Your task to perform on an android device: Do I have any events today? Image 0: 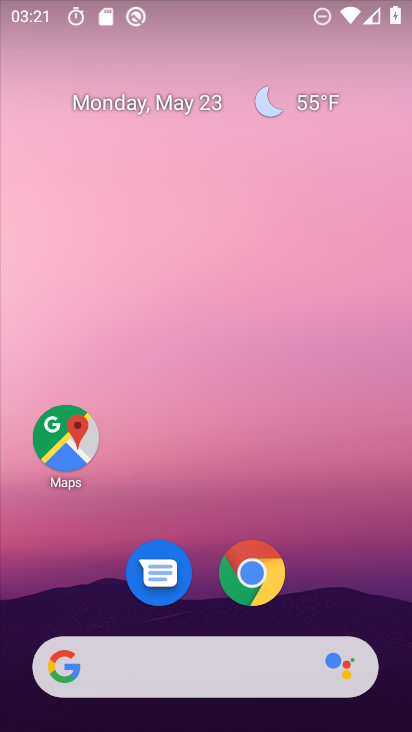
Step 0: click (140, 102)
Your task to perform on an android device: Do I have any events today? Image 1: 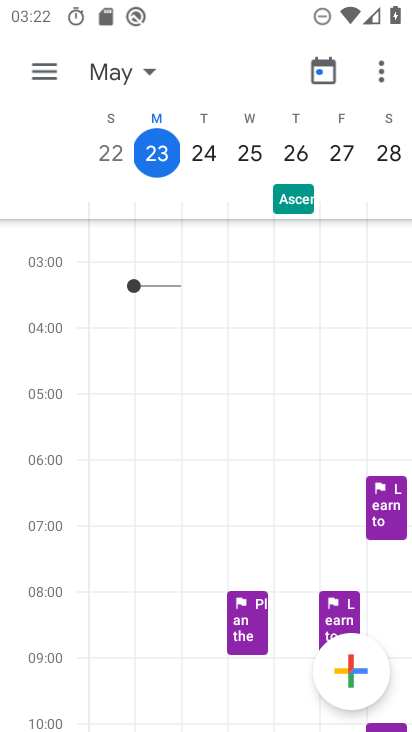
Step 1: click (46, 69)
Your task to perform on an android device: Do I have any events today? Image 2: 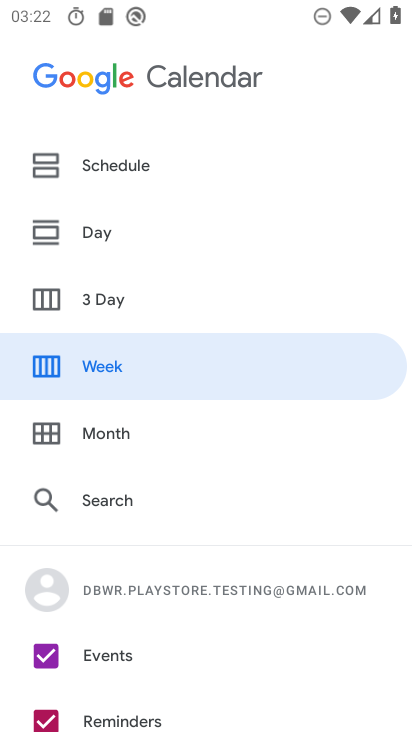
Step 2: click (131, 168)
Your task to perform on an android device: Do I have any events today? Image 3: 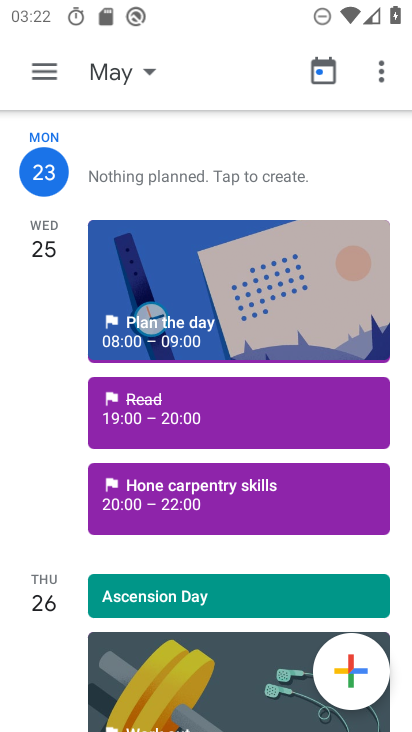
Step 3: task complete